Your task to perform on an android device: add a label to a message in the gmail app Image 0: 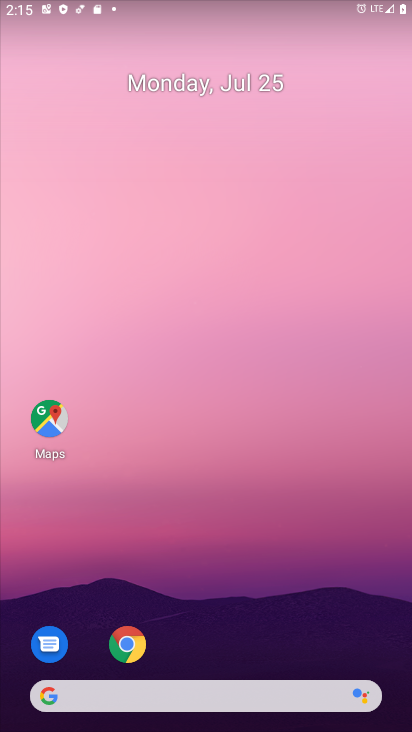
Step 0: drag from (340, 637) to (122, 21)
Your task to perform on an android device: add a label to a message in the gmail app Image 1: 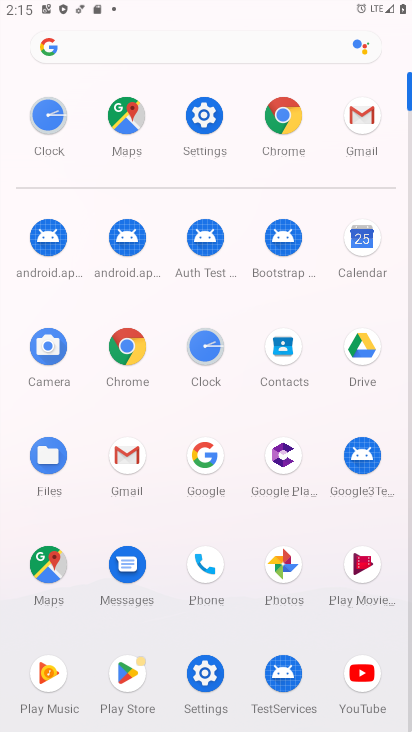
Step 1: click (111, 452)
Your task to perform on an android device: add a label to a message in the gmail app Image 2: 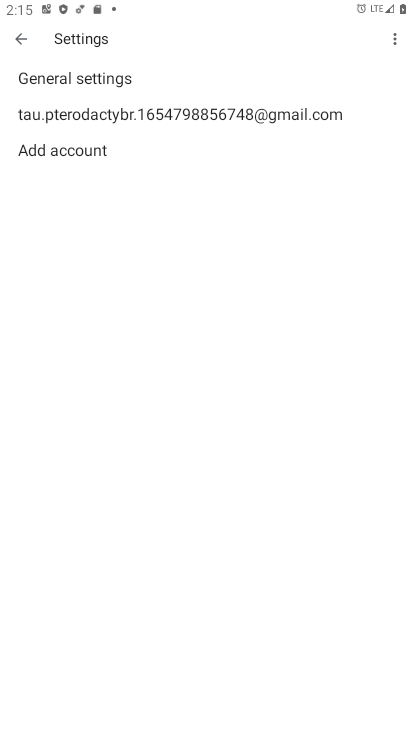
Step 2: task complete